Your task to perform on an android device: Show me recent news Image 0: 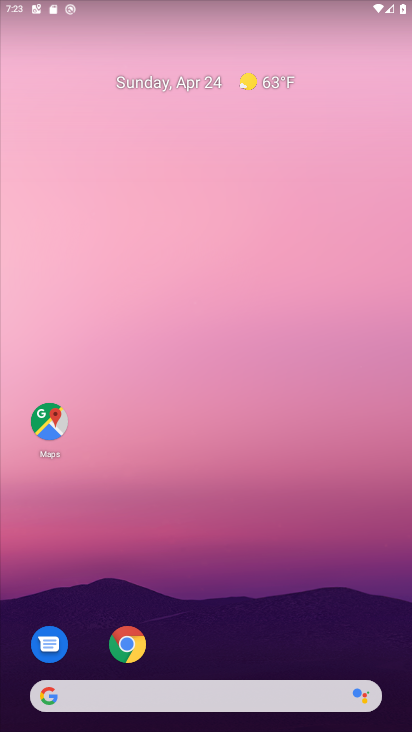
Step 0: drag from (216, 646) to (228, 125)
Your task to perform on an android device: Show me recent news Image 1: 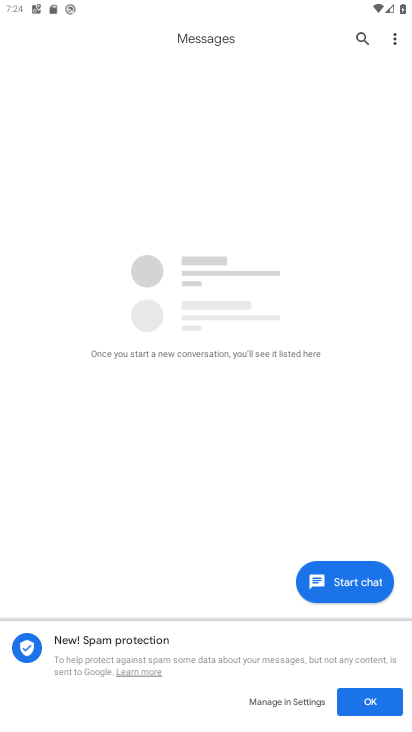
Step 1: task complete